Your task to perform on an android device: turn off location history Image 0: 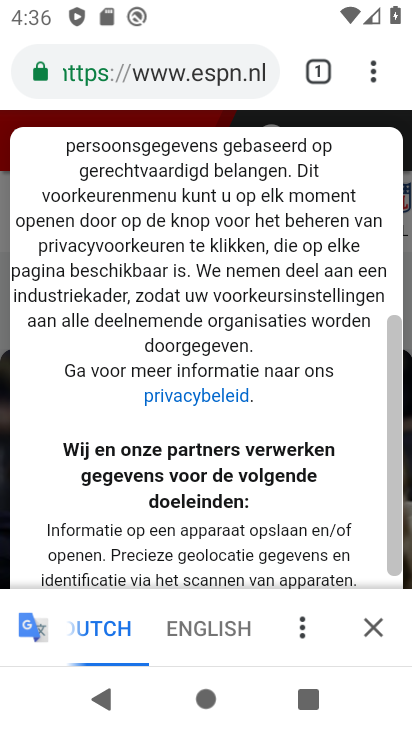
Step 0: press home button
Your task to perform on an android device: turn off location history Image 1: 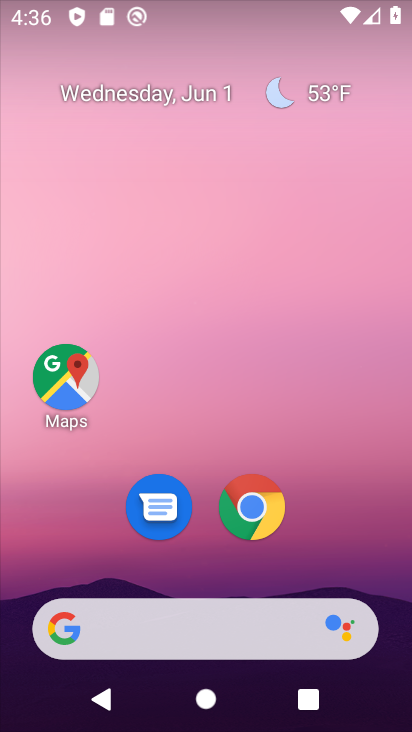
Step 1: drag from (305, 546) to (282, 13)
Your task to perform on an android device: turn off location history Image 2: 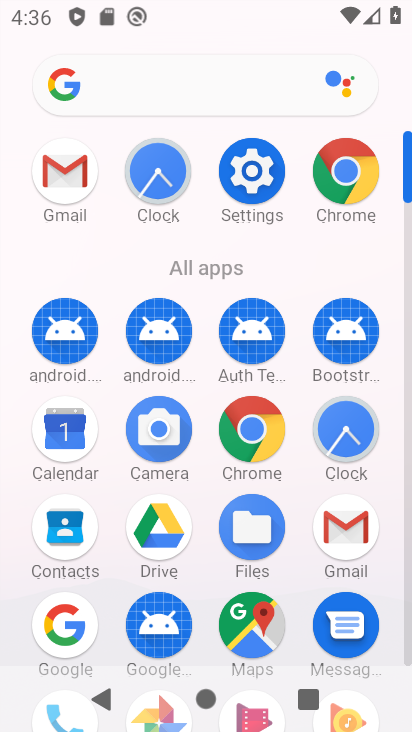
Step 2: click (252, 177)
Your task to perform on an android device: turn off location history Image 3: 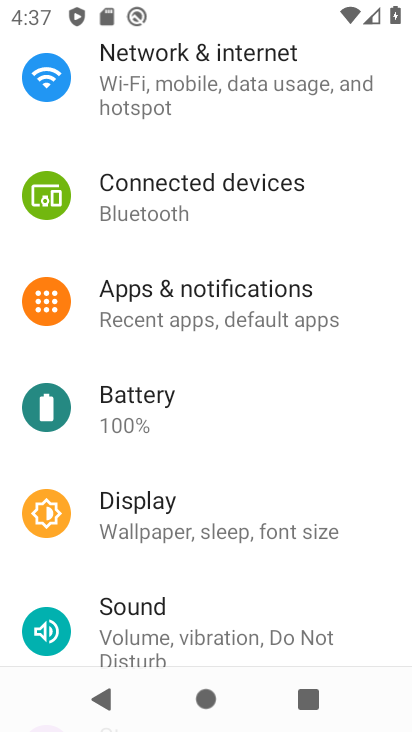
Step 3: drag from (217, 593) to (197, 84)
Your task to perform on an android device: turn off location history Image 4: 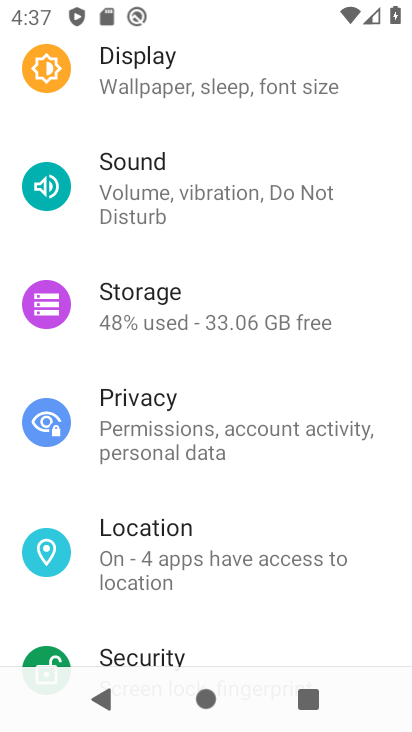
Step 4: click (174, 539)
Your task to perform on an android device: turn off location history Image 5: 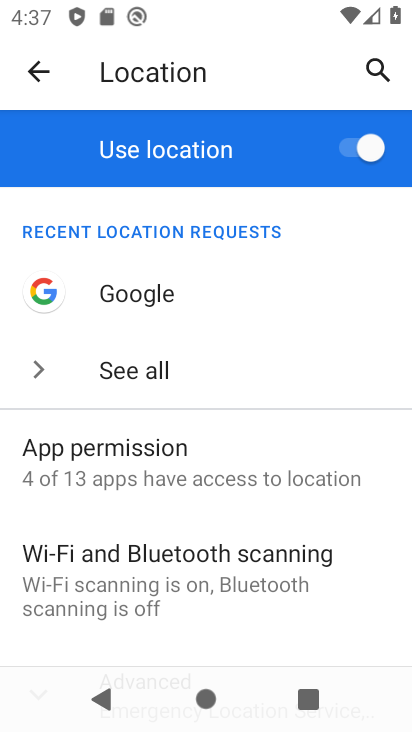
Step 5: drag from (188, 629) to (225, 206)
Your task to perform on an android device: turn off location history Image 6: 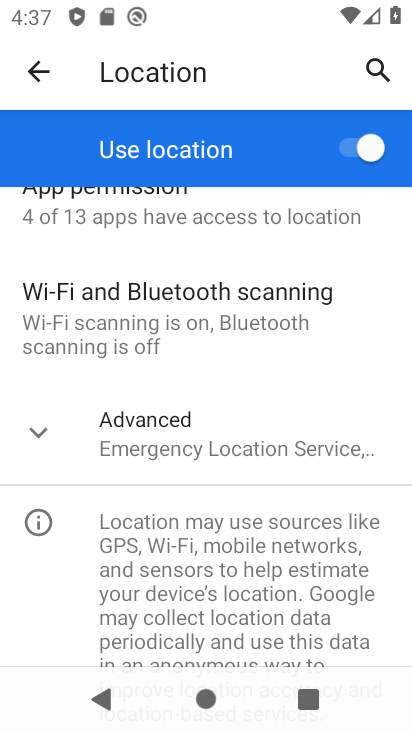
Step 6: click (251, 448)
Your task to perform on an android device: turn off location history Image 7: 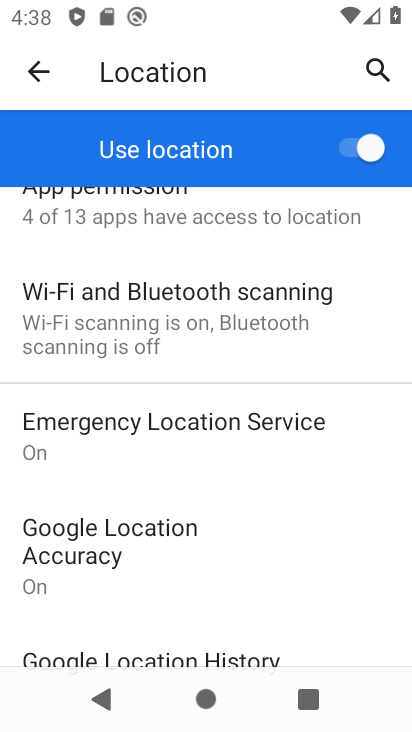
Step 7: drag from (253, 609) to (213, 296)
Your task to perform on an android device: turn off location history Image 8: 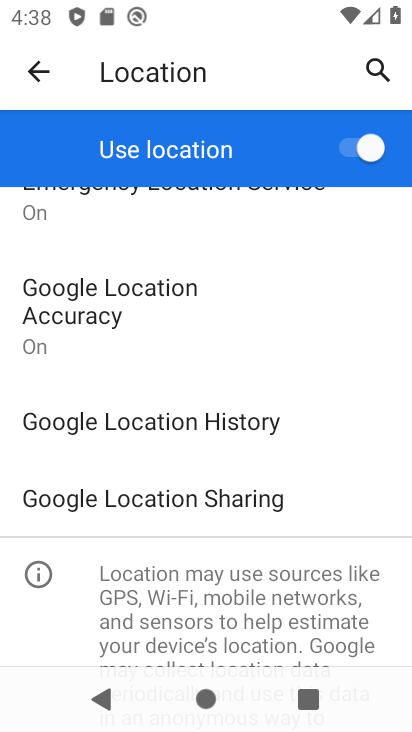
Step 8: click (146, 438)
Your task to perform on an android device: turn off location history Image 9: 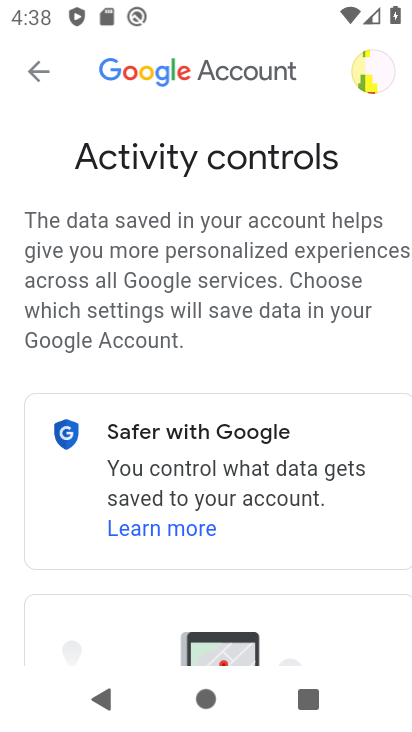
Step 9: drag from (262, 575) to (222, 117)
Your task to perform on an android device: turn off location history Image 10: 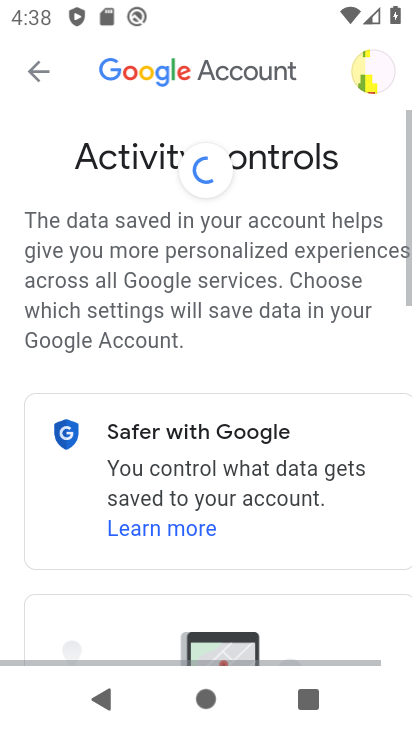
Step 10: drag from (268, 598) to (232, 94)
Your task to perform on an android device: turn off location history Image 11: 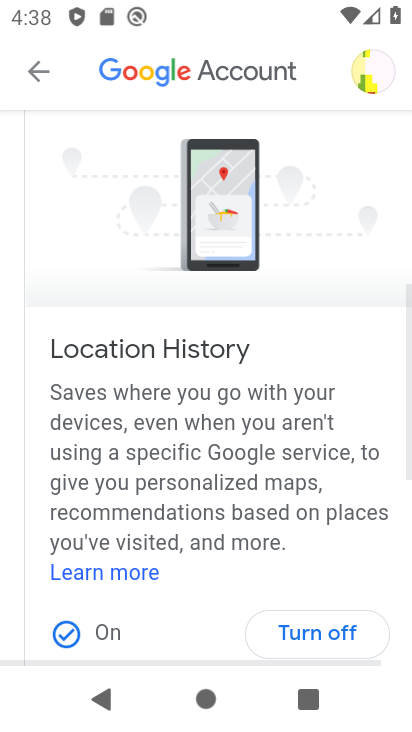
Step 11: drag from (276, 608) to (238, 175)
Your task to perform on an android device: turn off location history Image 12: 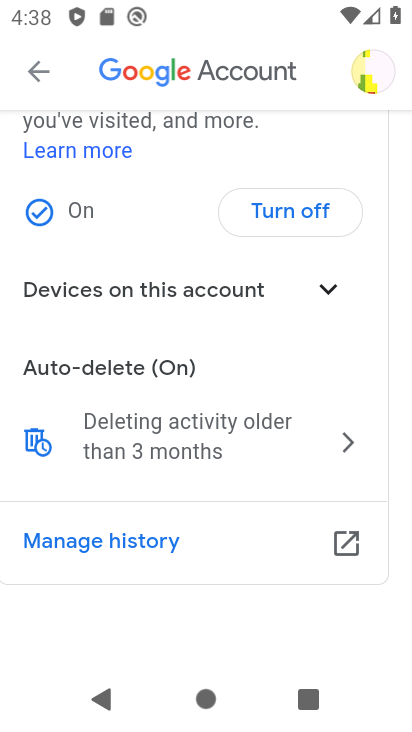
Step 12: click (278, 215)
Your task to perform on an android device: turn off location history Image 13: 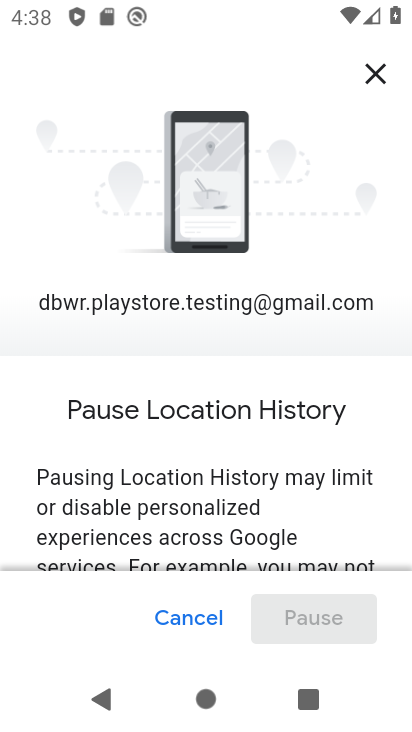
Step 13: drag from (341, 545) to (293, 175)
Your task to perform on an android device: turn off location history Image 14: 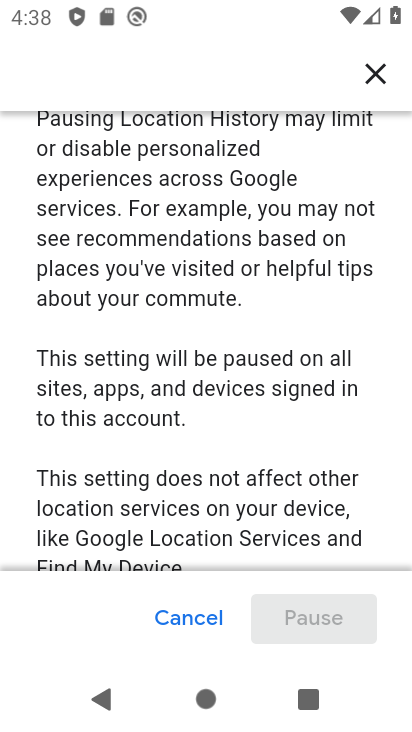
Step 14: drag from (319, 512) to (292, 175)
Your task to perform on an android device: turn off location history Image 15: 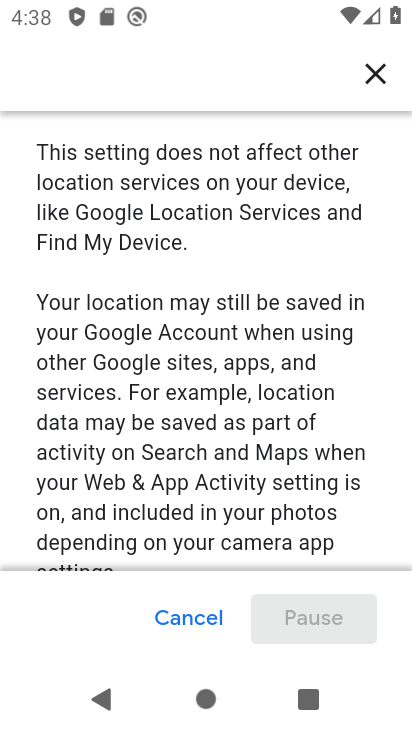
Step 15: drag from (292, 538) to (255, 163)
Your task to perform on an android device: turn off location history Image 16: 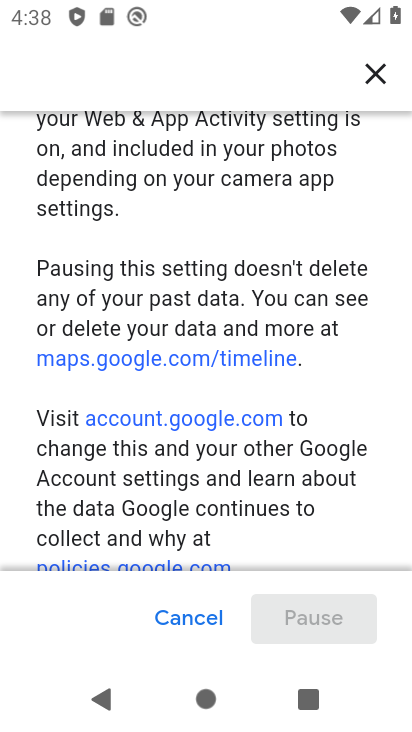
Step 16: drag from (288, 541) to (253, 126)
Your task to perform on an android device: turn off location history Image 17: 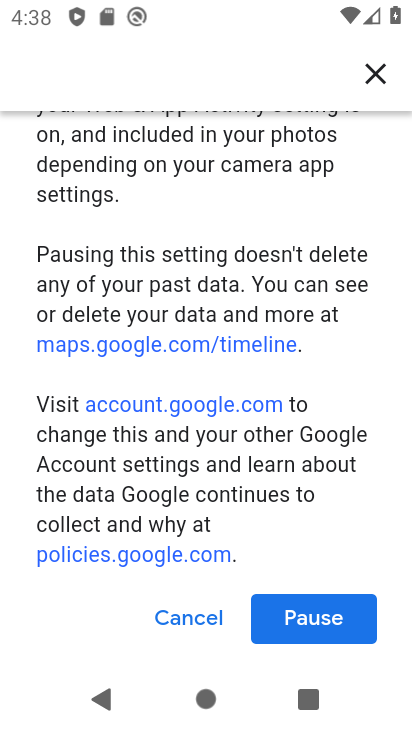
Step 17: click (325, 617)
Your task to perform on an android device: turn off location history Image 18: 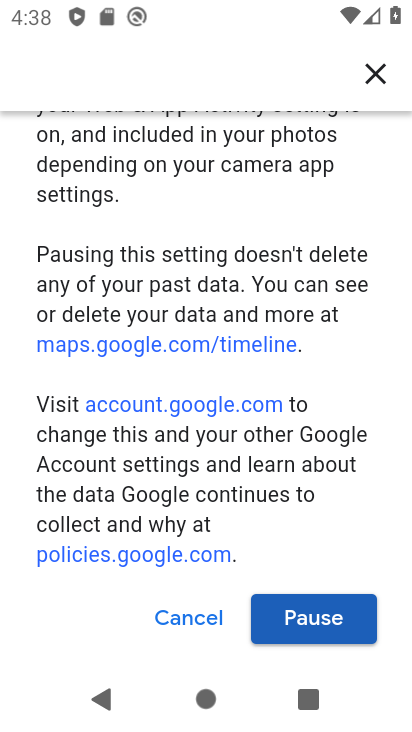
Step 18: click (325, 617)
Your task to perform on an android device: turn off location history Image 19: 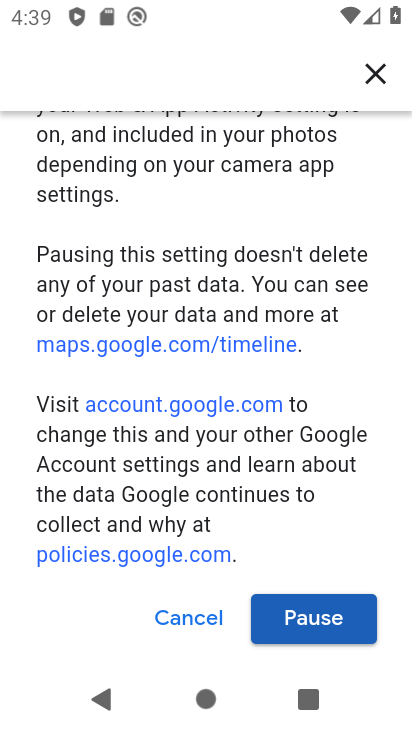
Step 19: click (325, 617)
Your task to perform on an android device: turn off location history Image 20: 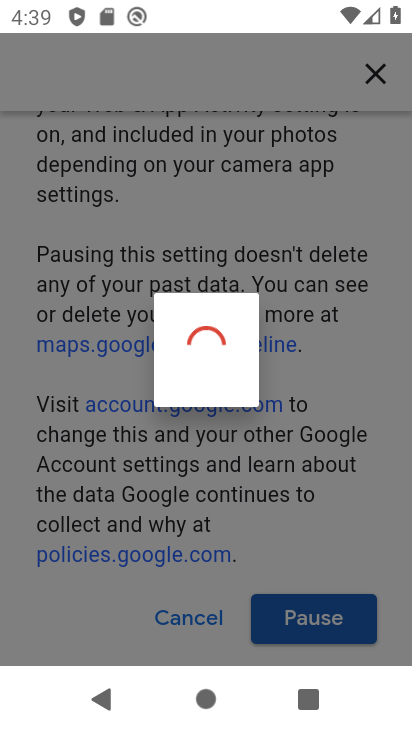
Step 20: click (325, 617)
Your task to perform on an android device: turn off location history Image 21: 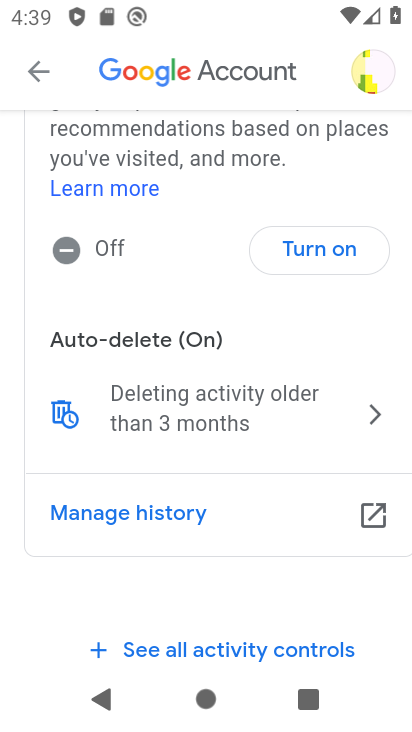
Step 21: task complete